Your task to perform on an android device: Open the phone app and click the voicemail tab. Image 0: 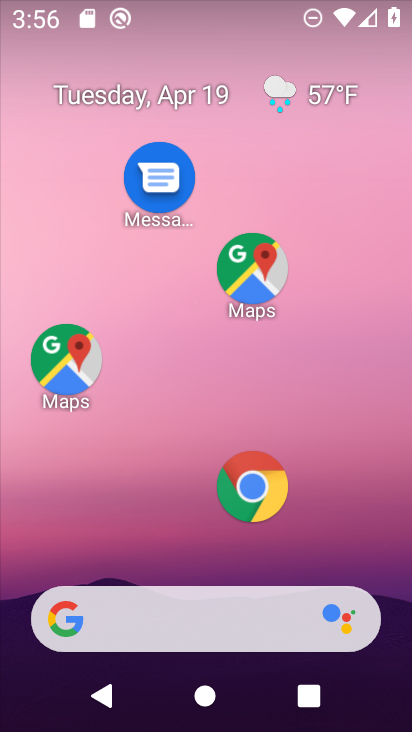
Step 0: drag from (167, 570) to (254, 202)
Your task to perform on an android device: Open the phone app and click the voicemail tab. Image 1: 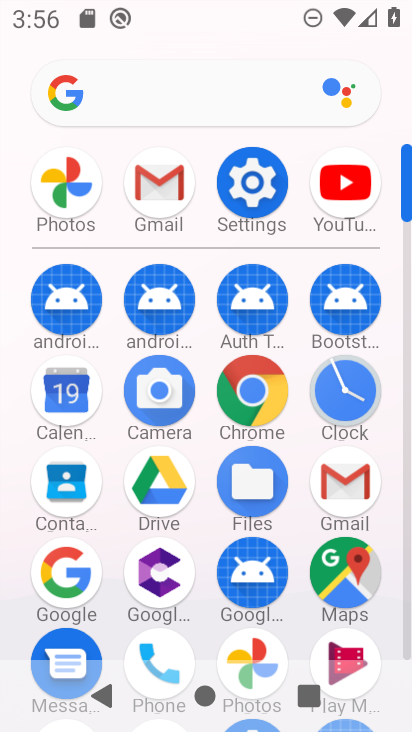
Step 1: drag from (194, 591) to (193, 395)
Your task to perform on an android device: Open the phone app and click the voicemail tab. Image 2: 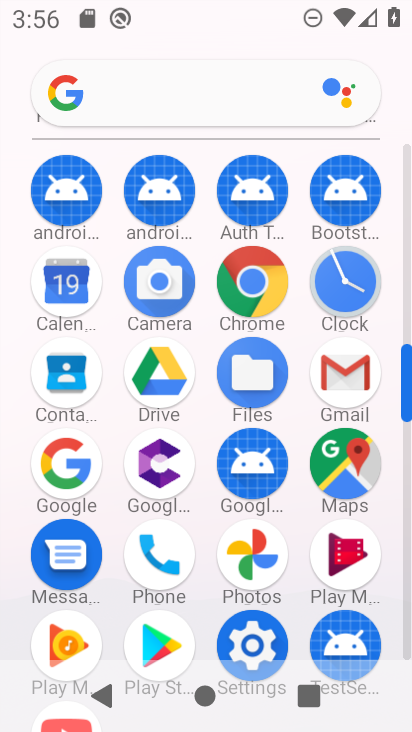
Step 2: click (145, 554)
Your task to perform on an android device: Open the phone app and click the voicemail tab. Image 3: 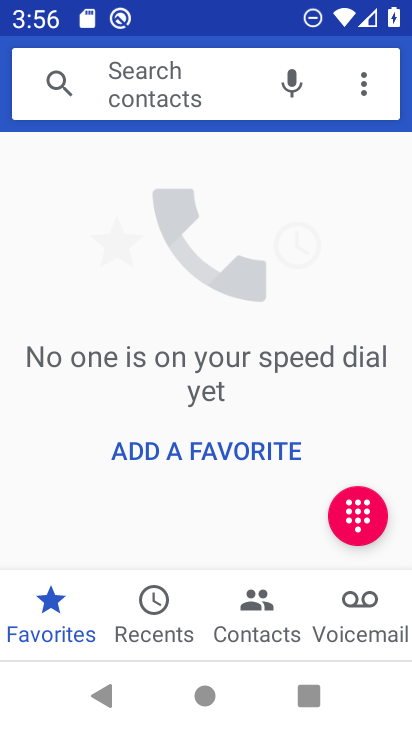
Step 3: click (349, 626)
Your task to perform on an android device: Open the phone app and click the voicemail tab. Image 4: 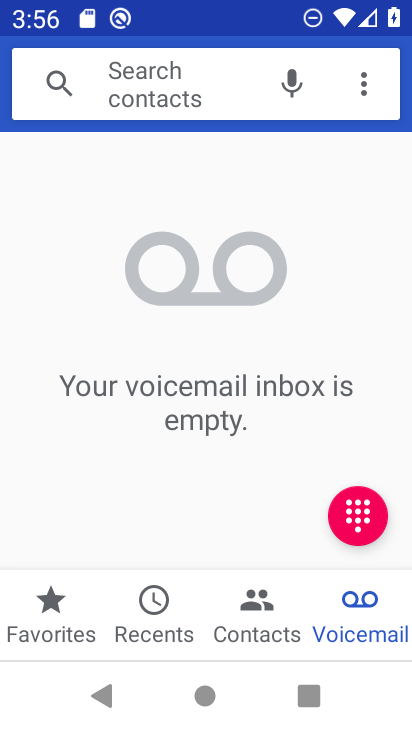
Step 4: task complete